Your task to perform on an android device: turn off data saver in the chrome app Image 0: 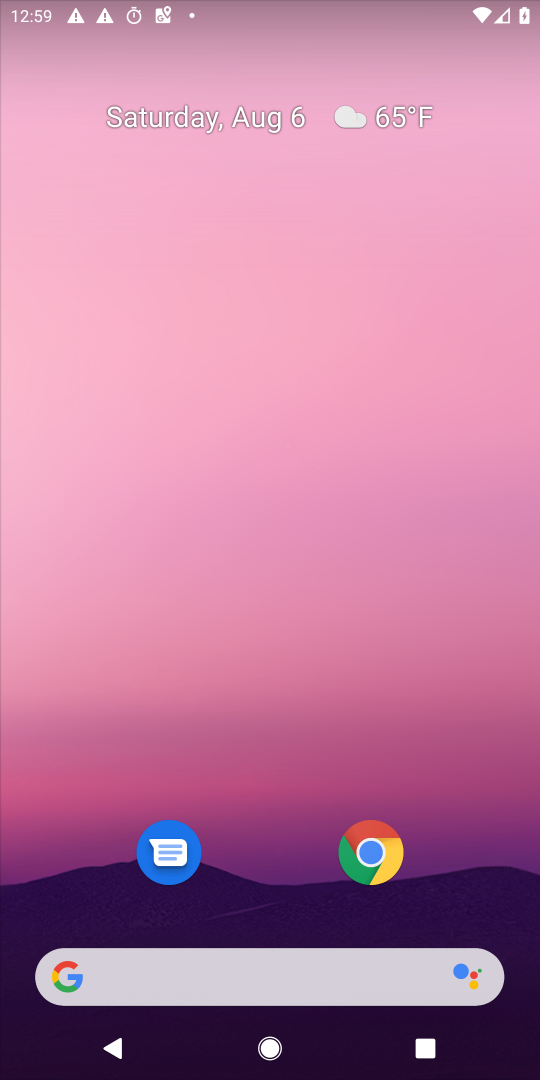
Step 0: press home button
Your task to perform on an android device: turn off data saver in the chrome app Image 1: 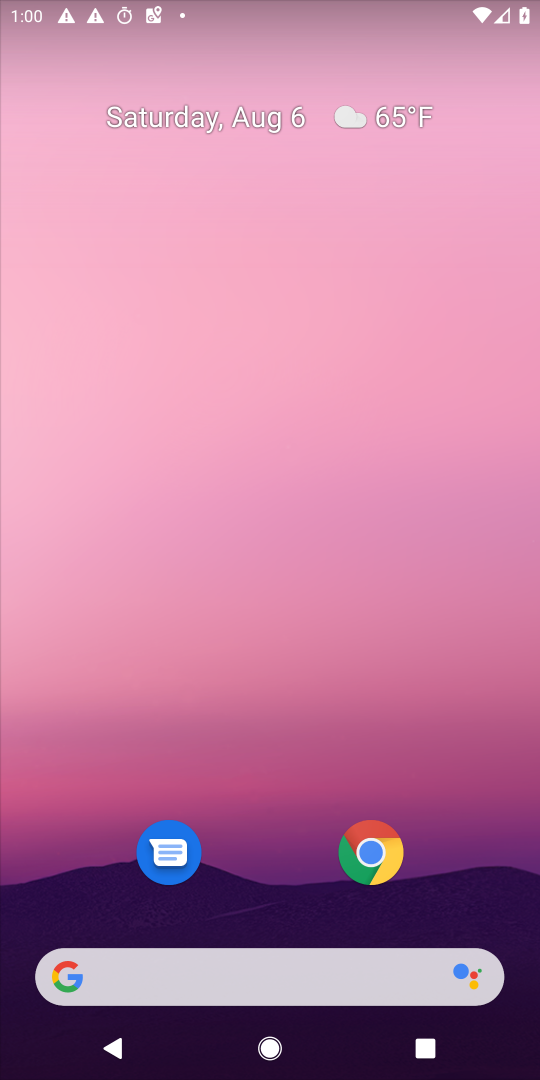
Step 1: drag from (375, 997) to (216, 167)
Your task to perform on an android device: turn off data saver in the chrome app Image 2: 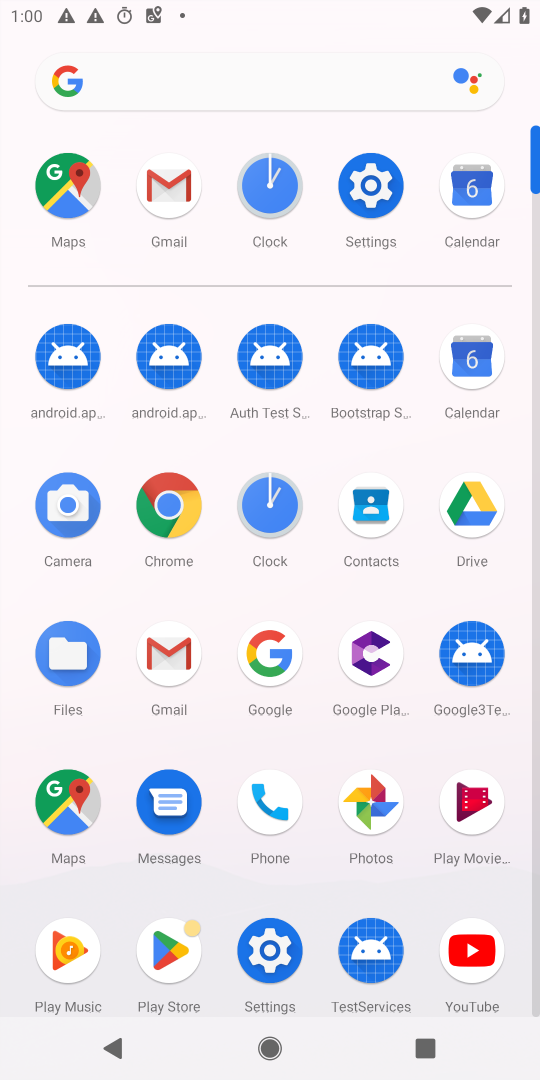
Step 2: click (186, 495)
Your task to perform on an android device: turn off data saver in the chrome app Image 3: 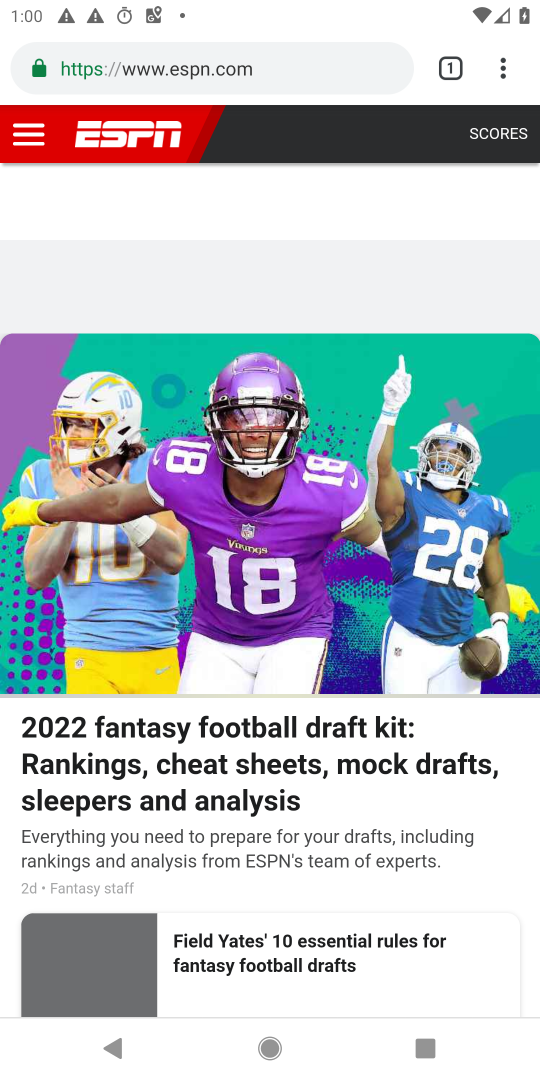
Step 3: click (505, 70)
Your task to perform on an android device: turn off data saver in the chrome app Image 4: 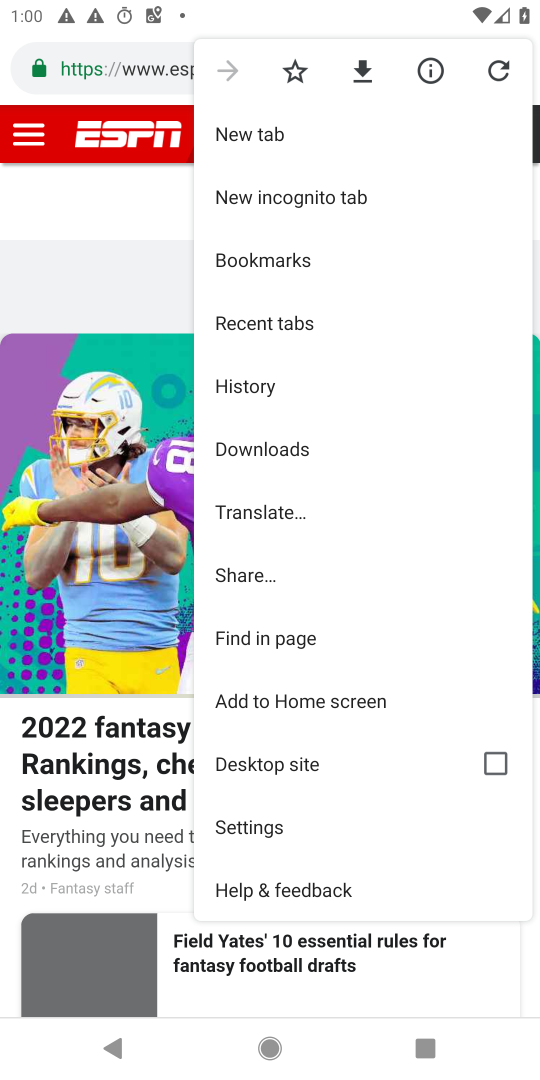
Step 4: click (261, 828)
Your task to perform on an android device: turn off data saver in the chrome app Image 5: 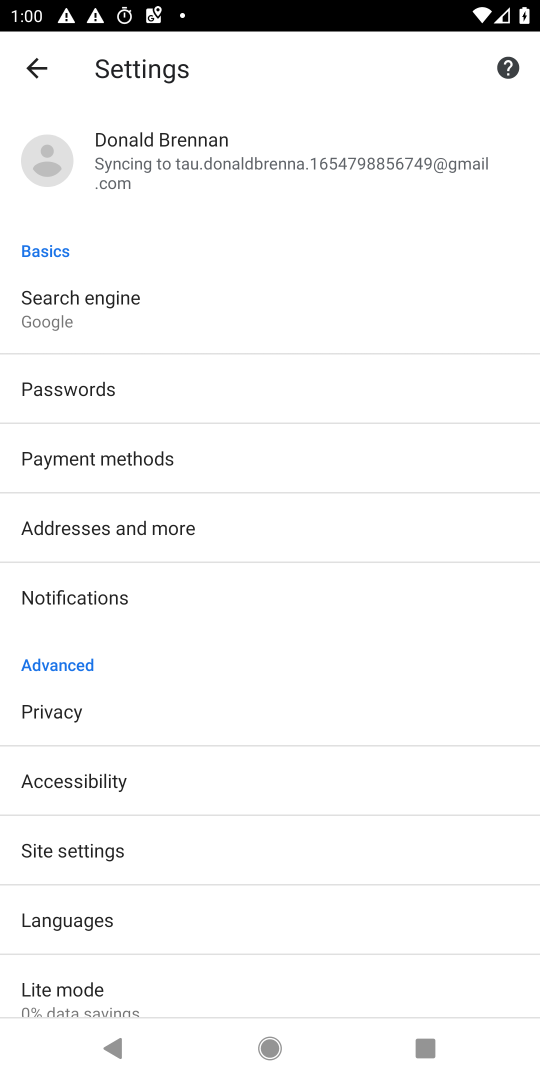
Step 5: click (107, 975)
Your task to perform on an android device: turn off data saver in the chrome app Image 6: 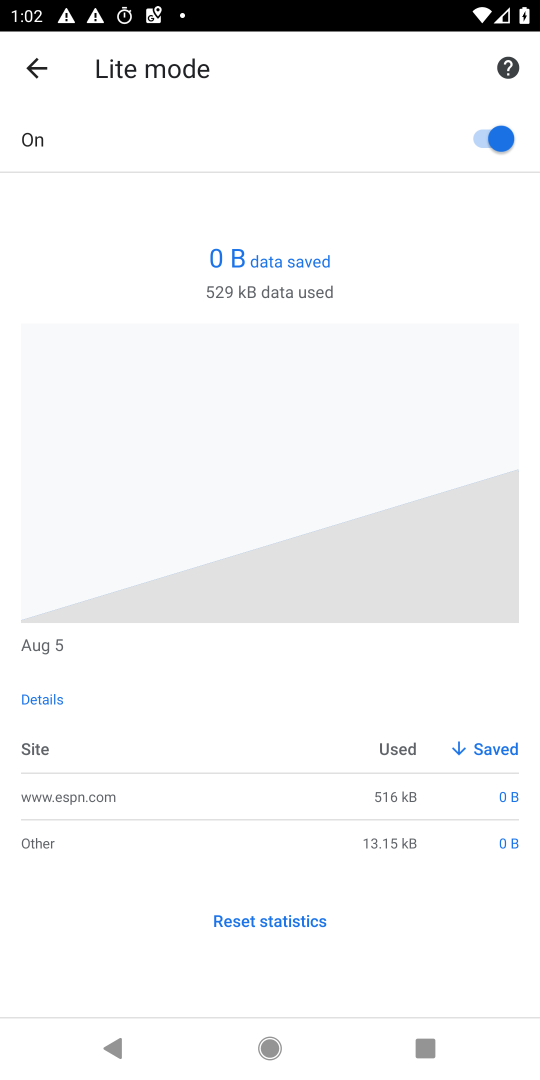
Step 6: task complete